Your task to perform on an android device: Open CNN.com Image 0: 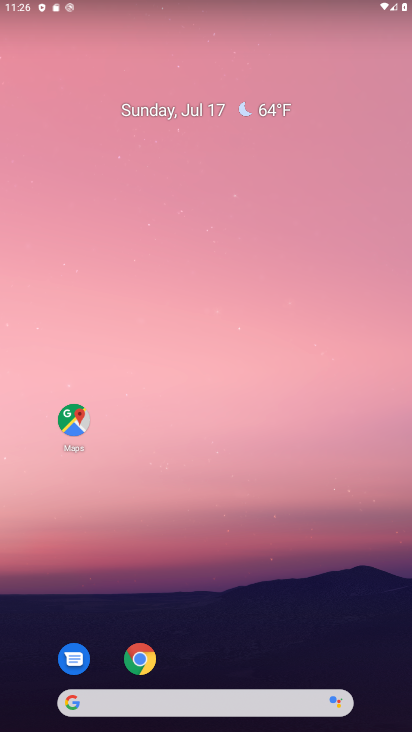
Step 0: click (165, 705)
Your task to perform on an android device: Open CNN.com Image 1: 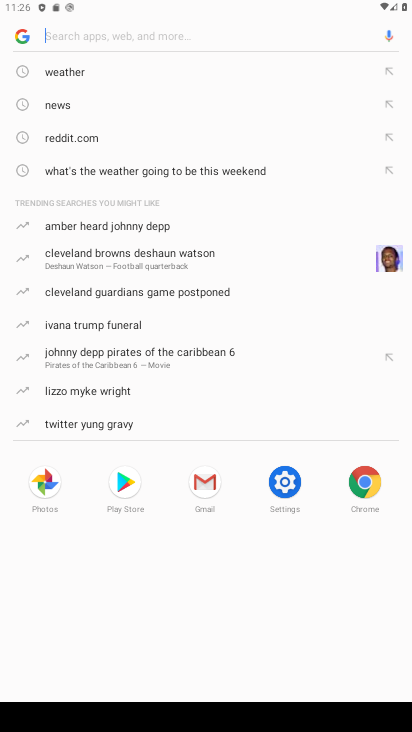
Step 1: type "CNN.com"
Your task to perform on an android device: Open CNN.com Image 2: 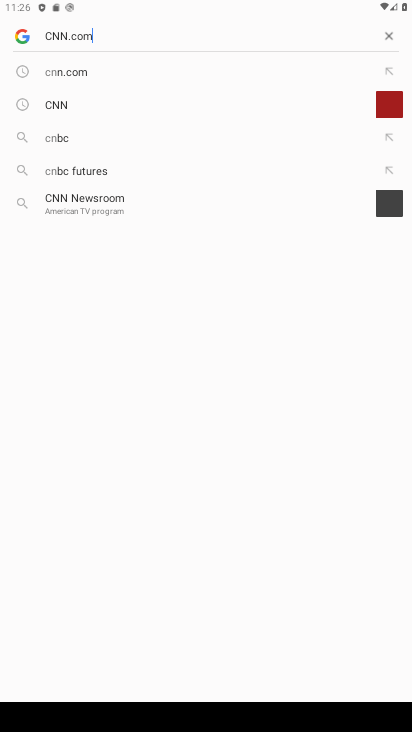
Step 2: press enter
Your task to perform on an android device: Open CNN.com Image 3: 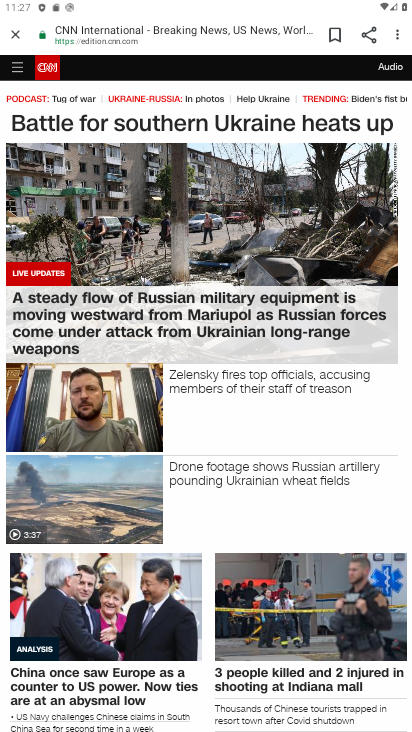
Step 3: task complete